Your task to perform on an android device: choose inbox layout in the gmail app Image 0: 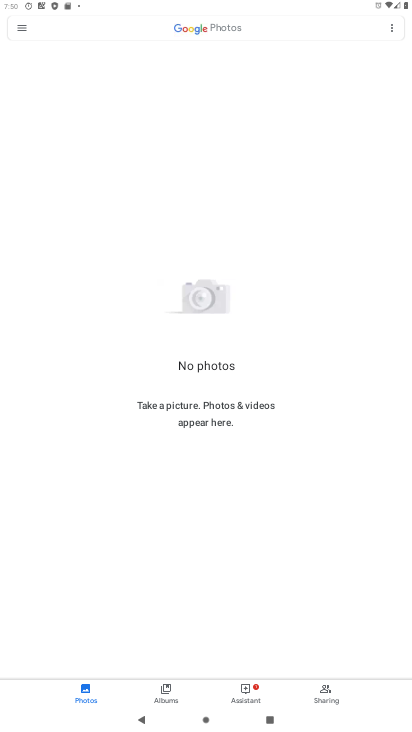
Step 0: press home button
Your task to perform on an android device: choose inbox layout in the gmail app Image 1: 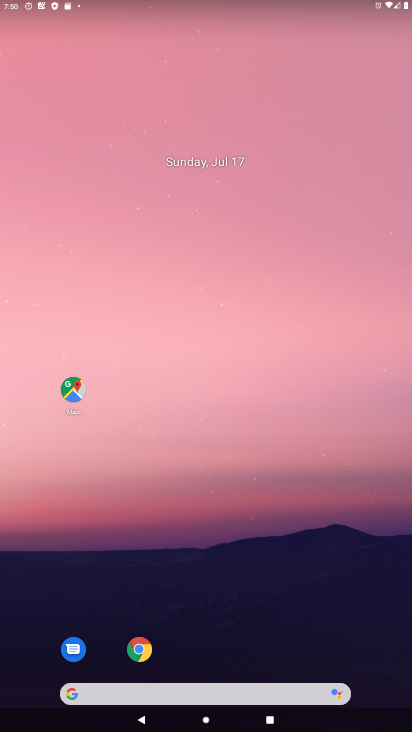
Step 1: drag from (197, 618) to (234, 58)
Your task to perform on an android device: choose inbox layout in the gmail app Image 2: 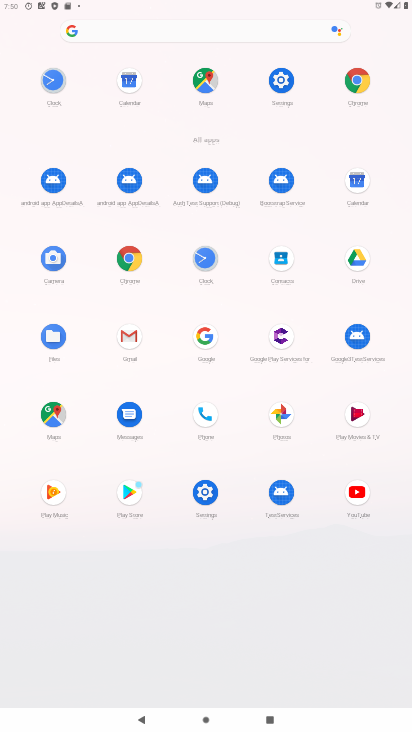
Step 2: click (126, 342)
Your task to perform on an android device: choose inbox layout in the gmail app Image 3: 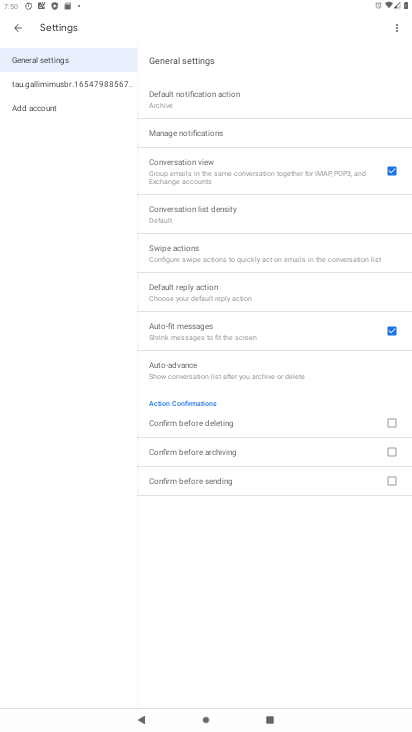
Step 3: click (70, 85)
Your task to perform on an android device: choose inbox layout in the gmail app Image 4: 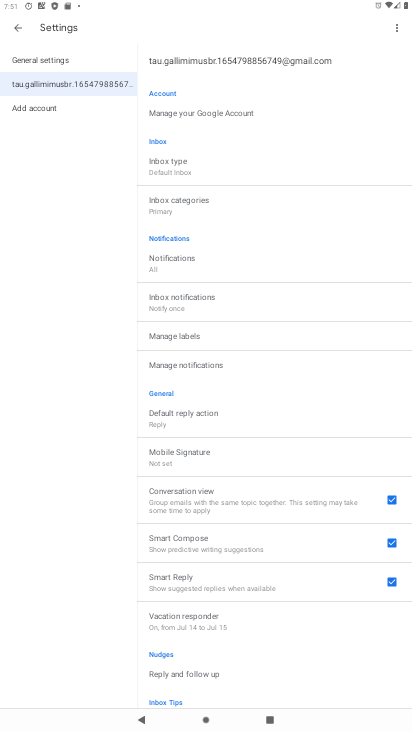
Step 4: click (195, 171)
Your task to perform on an android device: choose inbox layout in the gmail app Image 5: 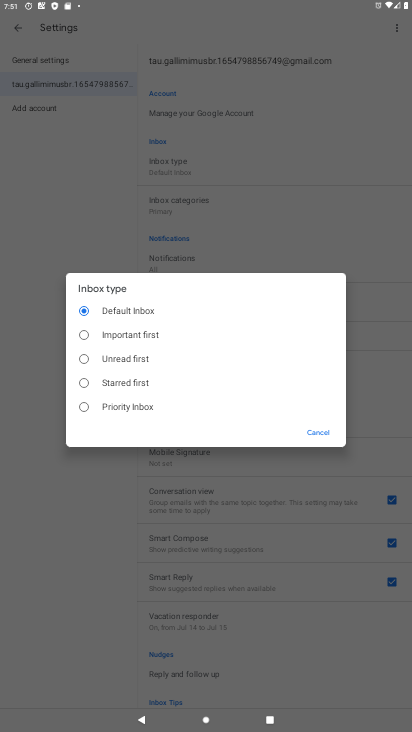
Step 5: click (101, 412)
Your task to perform on an android device: choose inbox layout in the gmail app Image 6: 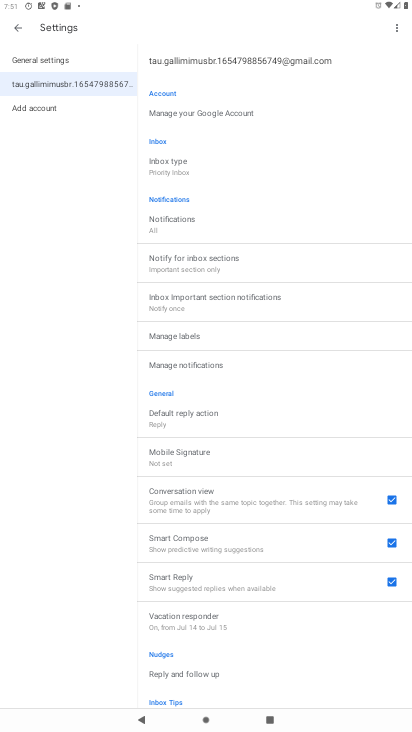
Step 6: task complete